Your task to perform on an android device: Add asus rog to the cart on walmart, then select checkout. Image 0: 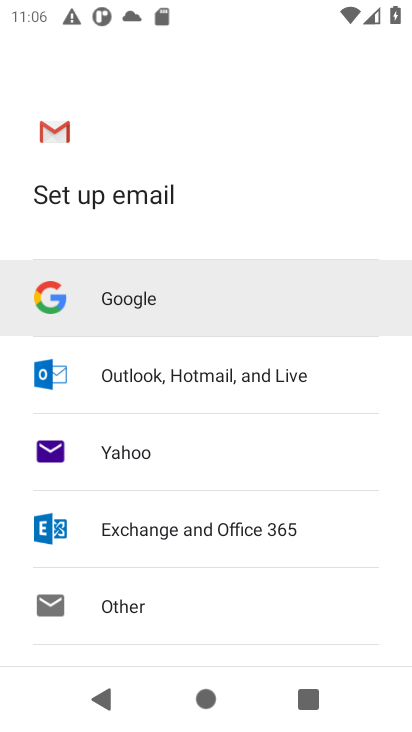
Step 0: press home button
Your task to perform on an android device: Add asus rog to the cart on walmart, then select checkout. Image 1: 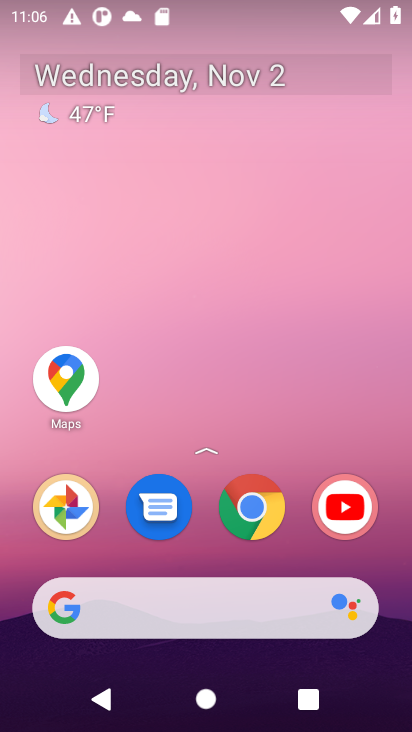
Step 1: click (137, 597)
Your task to perform on an android device: Add asus rog to the cart on walmart, then select checkout. Image 2: 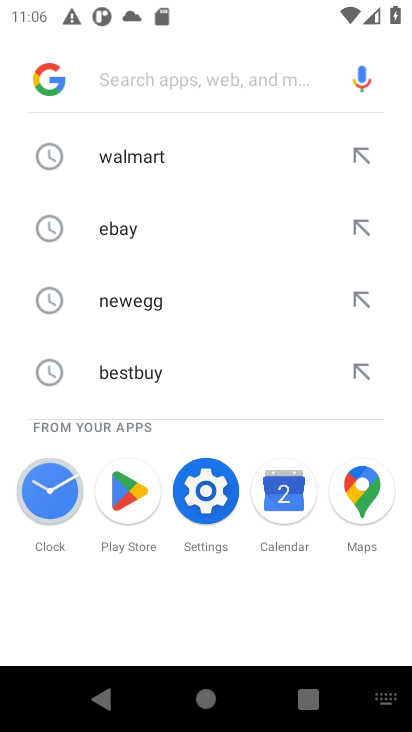
Step 2: type "walmart"
Your task to perform on an android device: Add asus rog to the cart on walmart, then select checkout. Image 3: 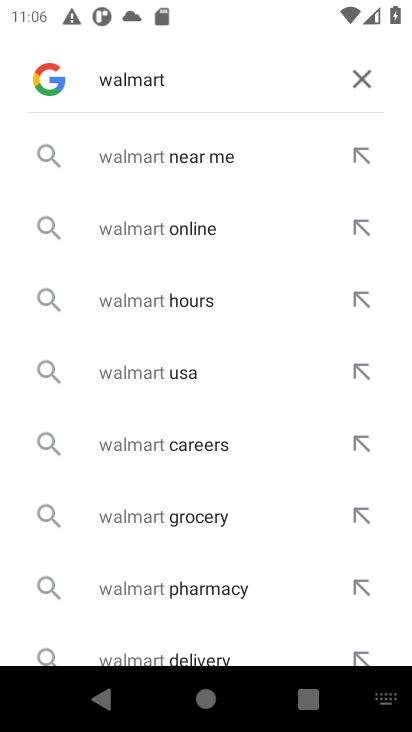
Step 3: click (163, 219)
Your task to perform on an android device: Add asus rog to the cart on walmart, then select checkout. Image 4: 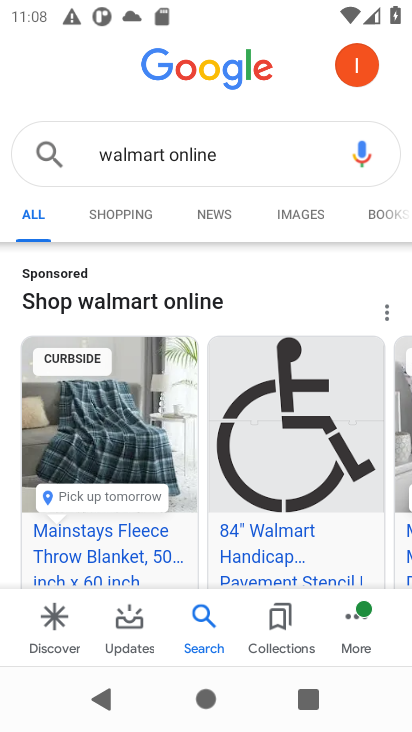
Step 4: click (144, 576)
Your task to perform on an android device: Add asus rog to the cart on walmart, then select checkout. Image 5: 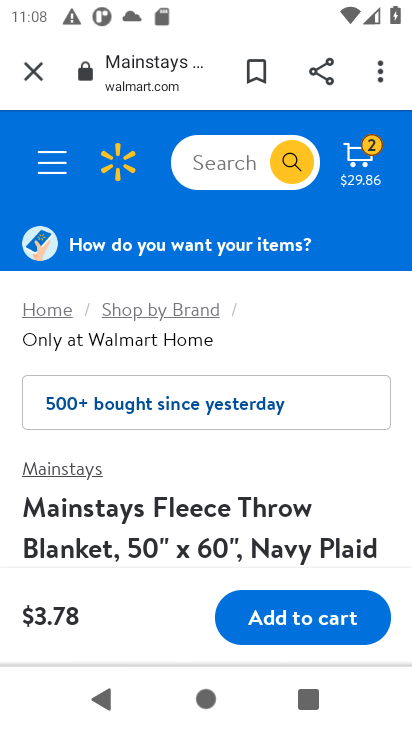
Step 5: click (227, 162)
Your task to perform on an android device: Add asus rog to the cart on walmart, then select checkout. Image 6: 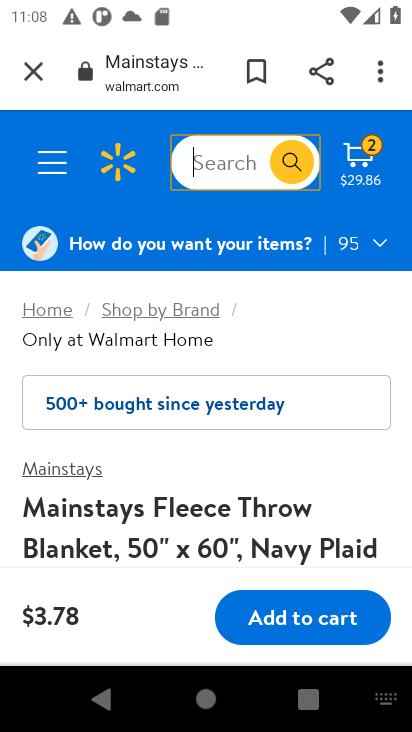
Step 6: type "asus rog"
Your task to perform on an android device: Add asus rog to the cart on walmart, then select checkout. Image 7: 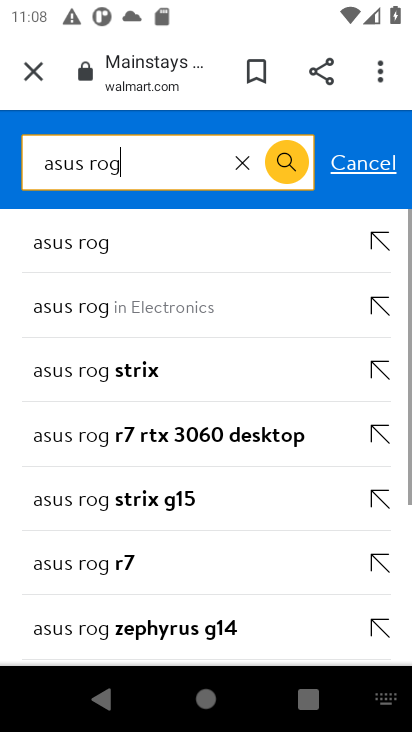
Step 7: click (299, 173)
Your task to perform on an android device: Add asus rog to the cart on walmart, then select checkout. Image 8: 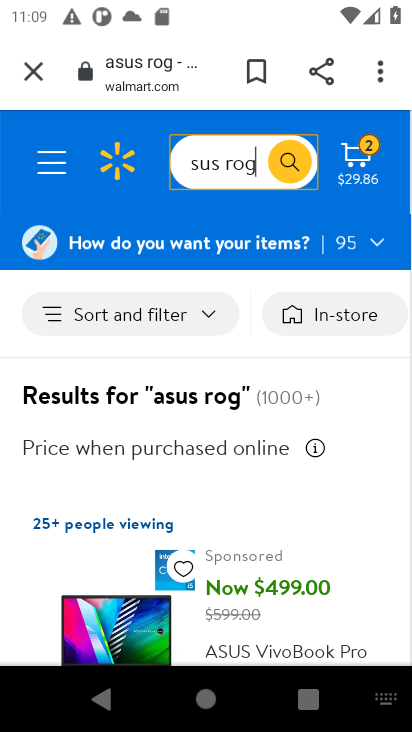
Step 8: task complete